Your task to perform on an android device: Open Chrome and go to the settings page Image 0: 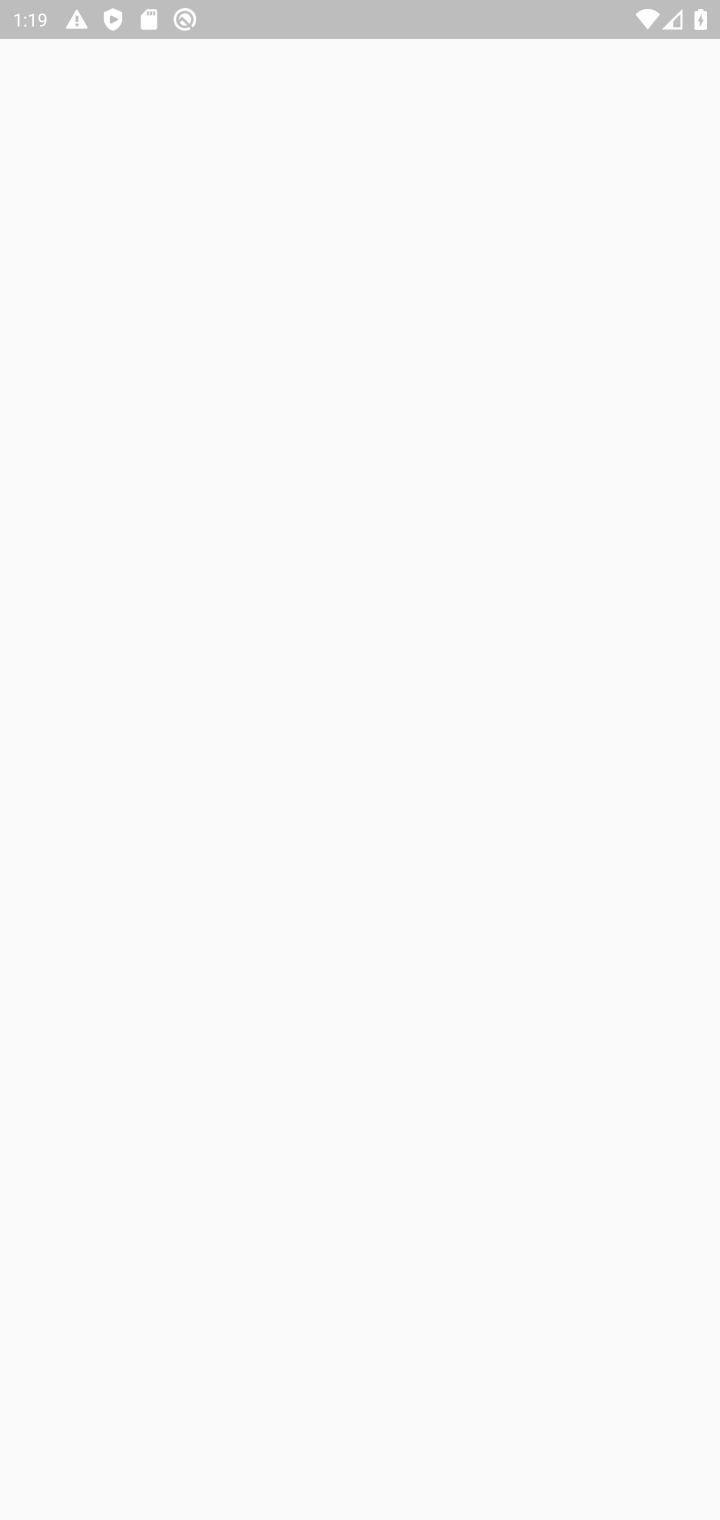
Step 0: press home button
Your task to perform on an android device: Open Chrome and go to the settings page Image 1: 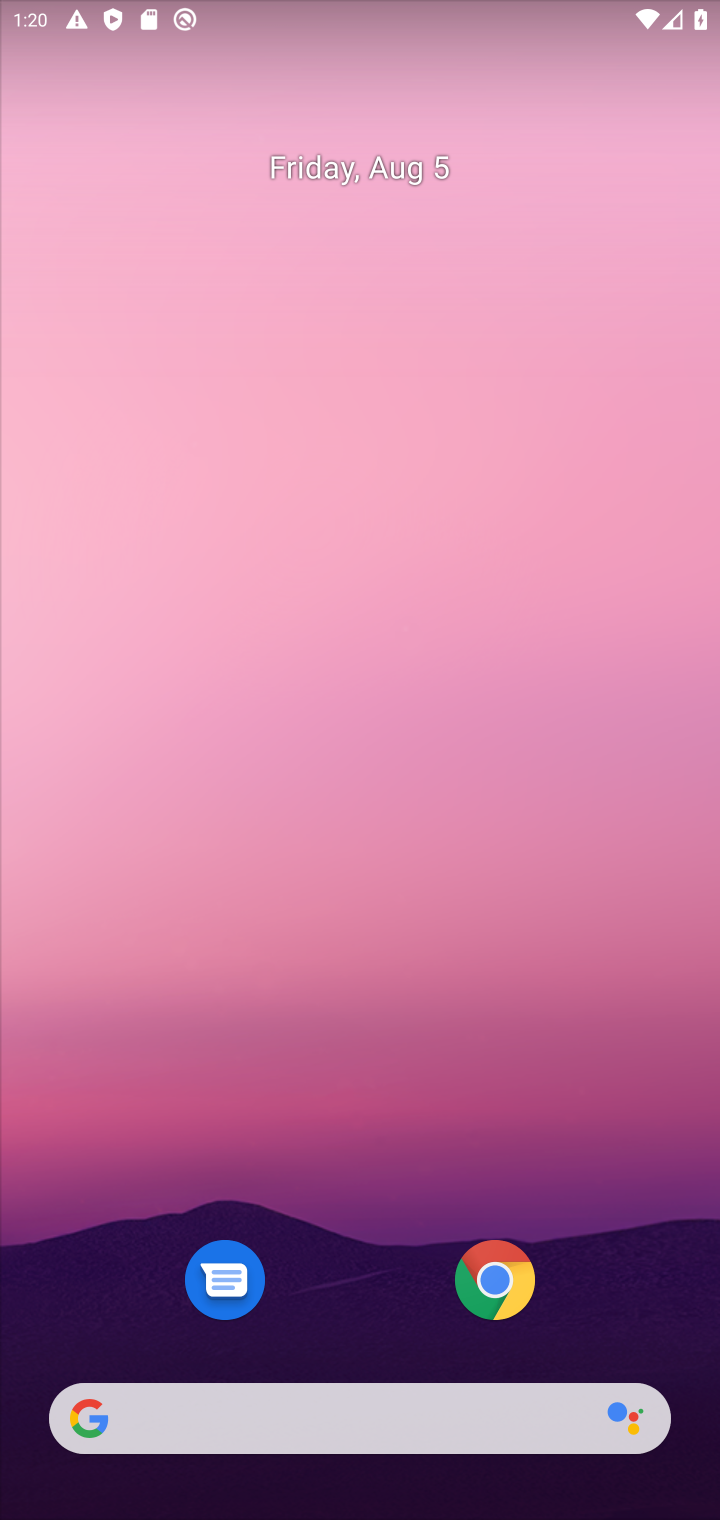
Step 1: click (499, 1277)
Your task to perform on an android device: Open Chrome and go to the settings page Image 2: 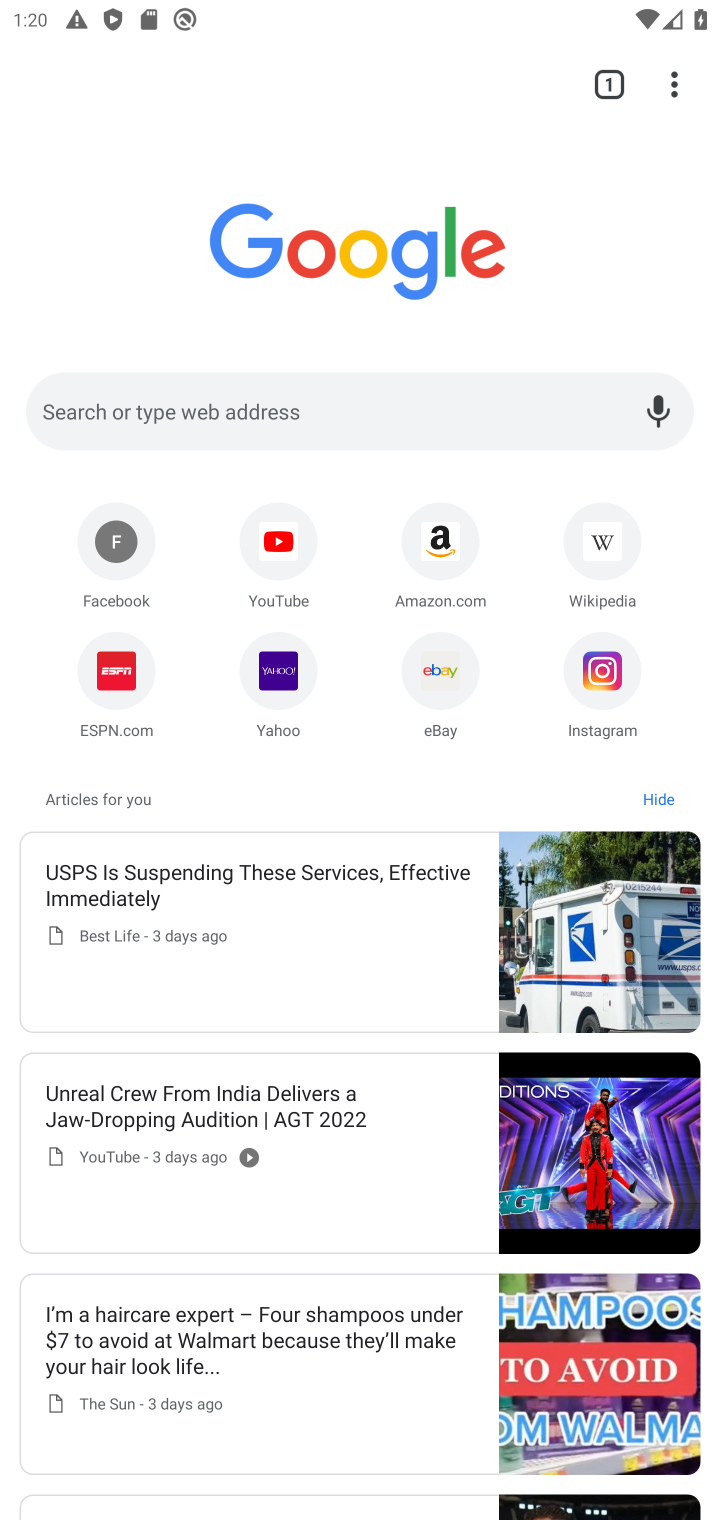
Step 2: click (670, 80)
Your task to perform on an android device: Open Chrome and go to the settings page Image 3: 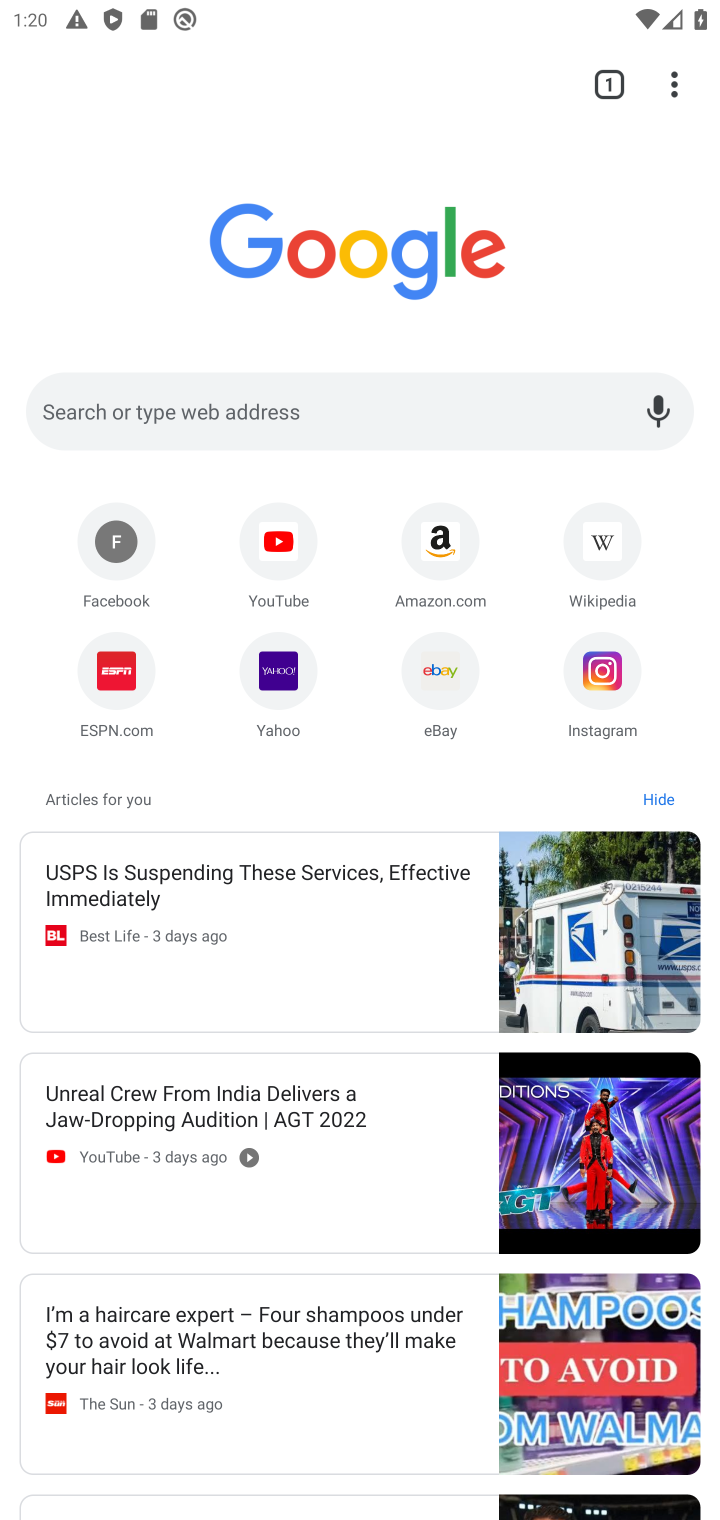
Step 3: click (676, 99)
Your task to perform on an android device: Open Chrome and go to the settings page Image 4: 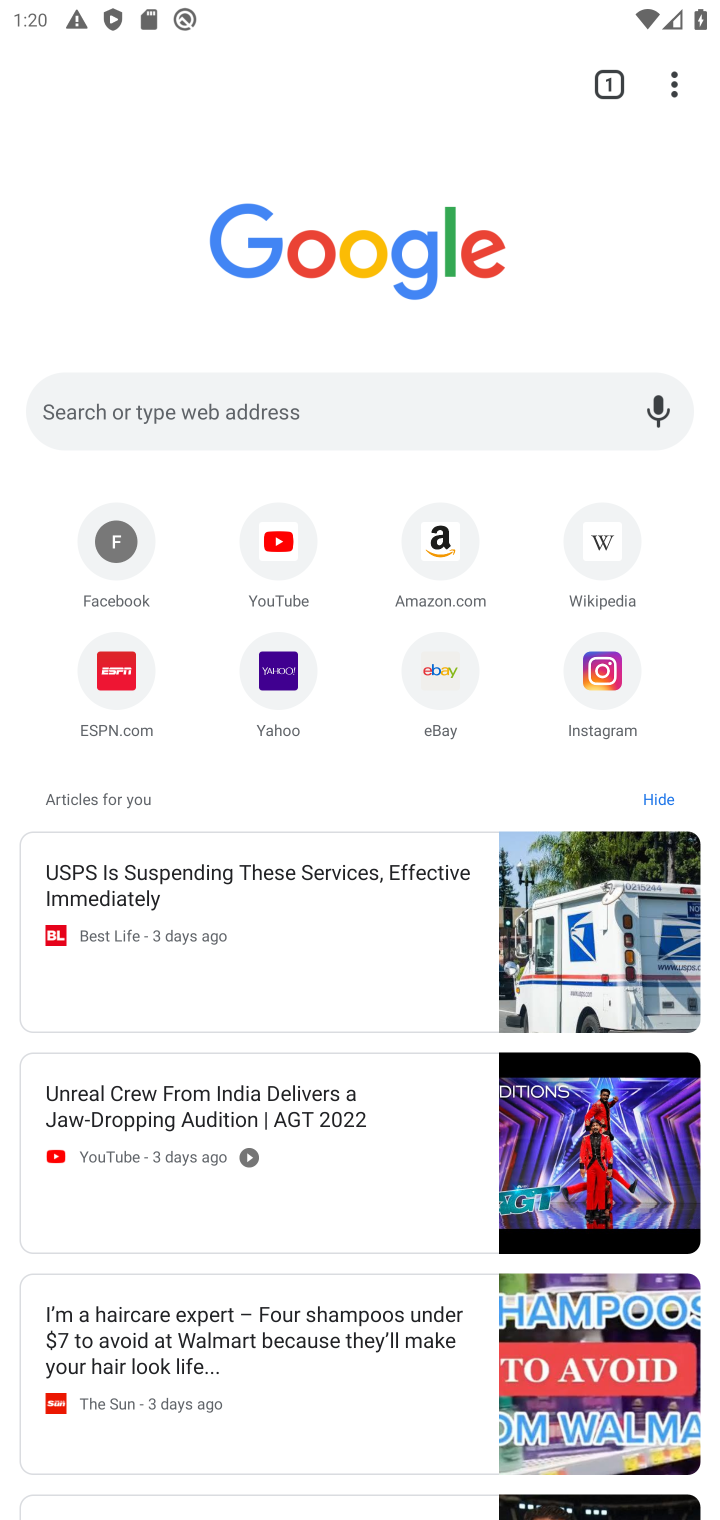
Step 4: click (671, 88)
Your task to perform on an android device: Open Chrome and go to the settings page Image 5: 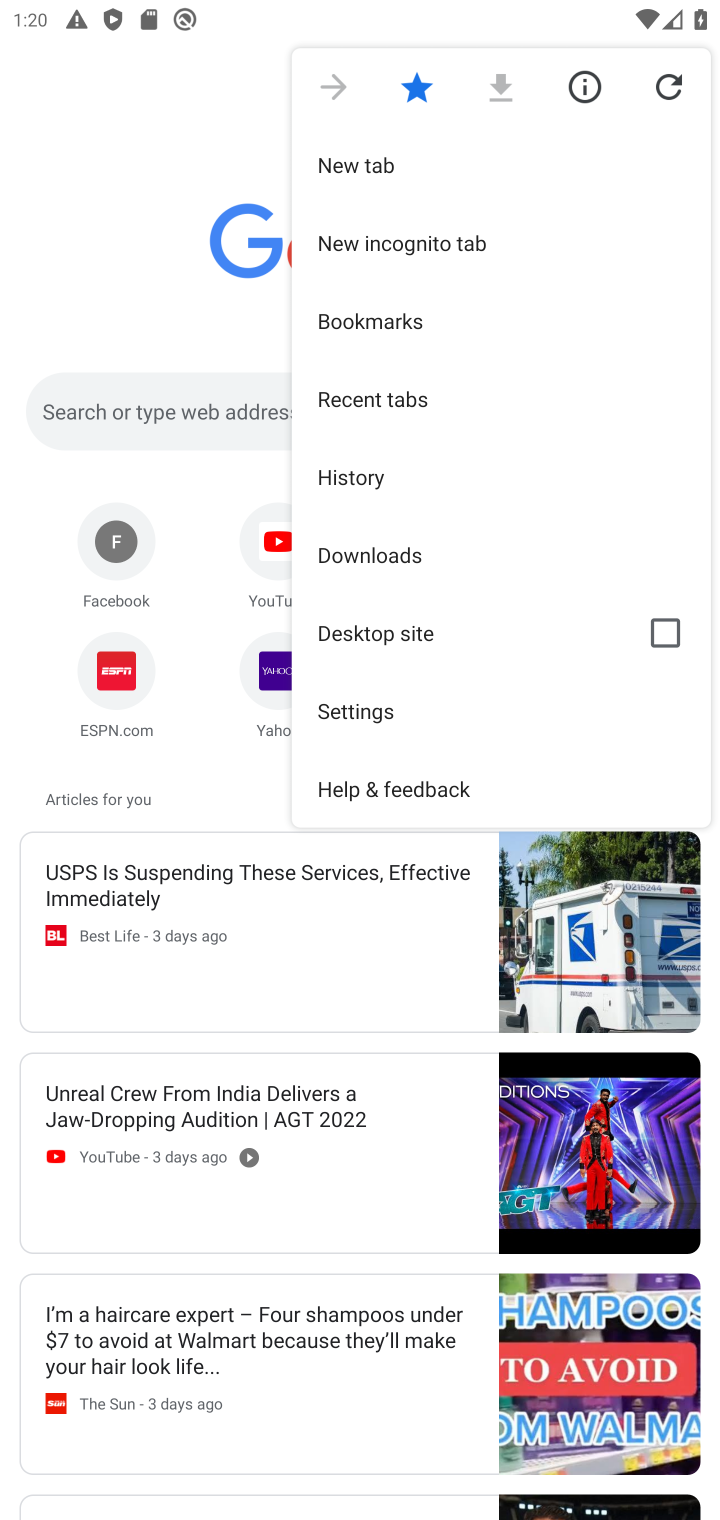
Step 5: click (388, 713)
Your task to perform on an android device: Open Chrome and go to the settings page Image 6: 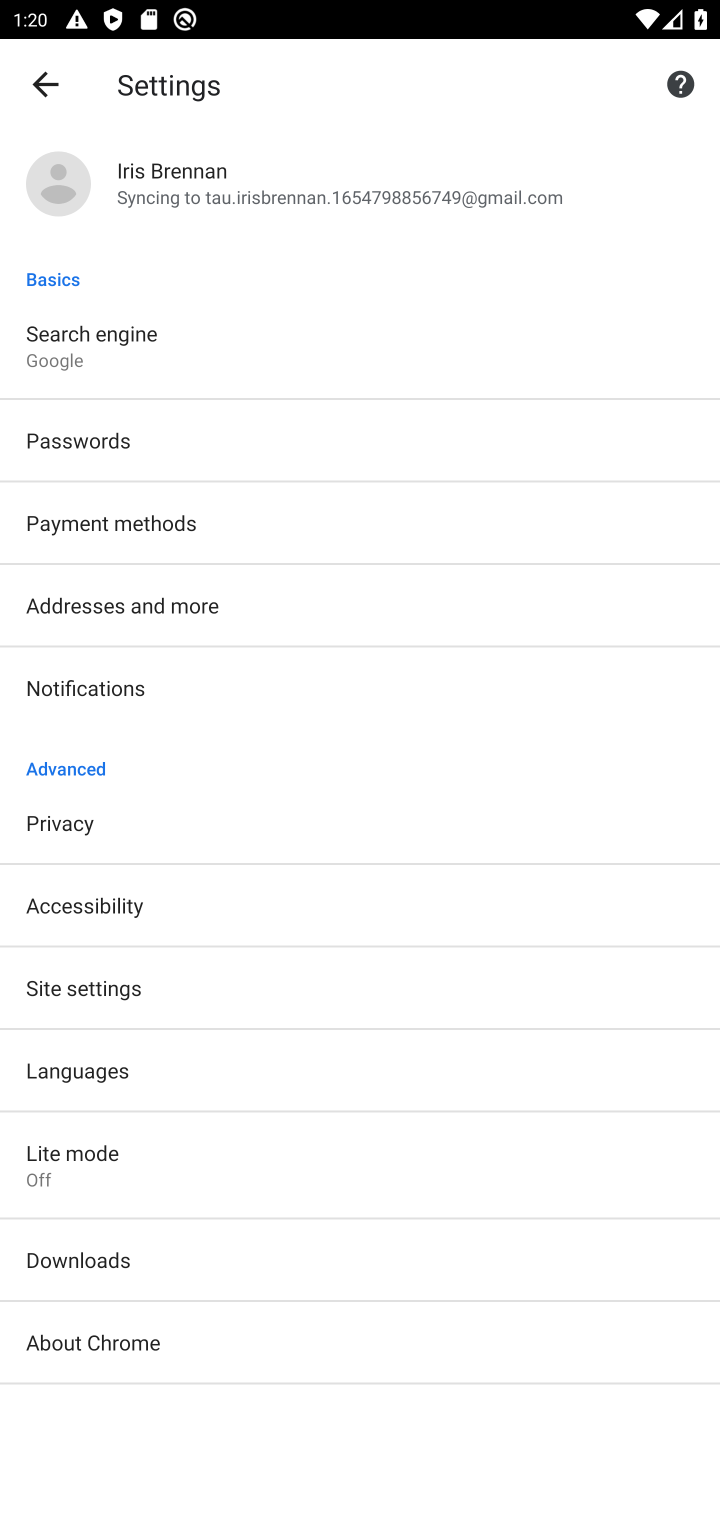
Step 6: task complete